Your task to perform on an android device: Search for "macbook pro 13 inch" on walmart, select the first entry, add it to the cart, then select checkout. Image 0: 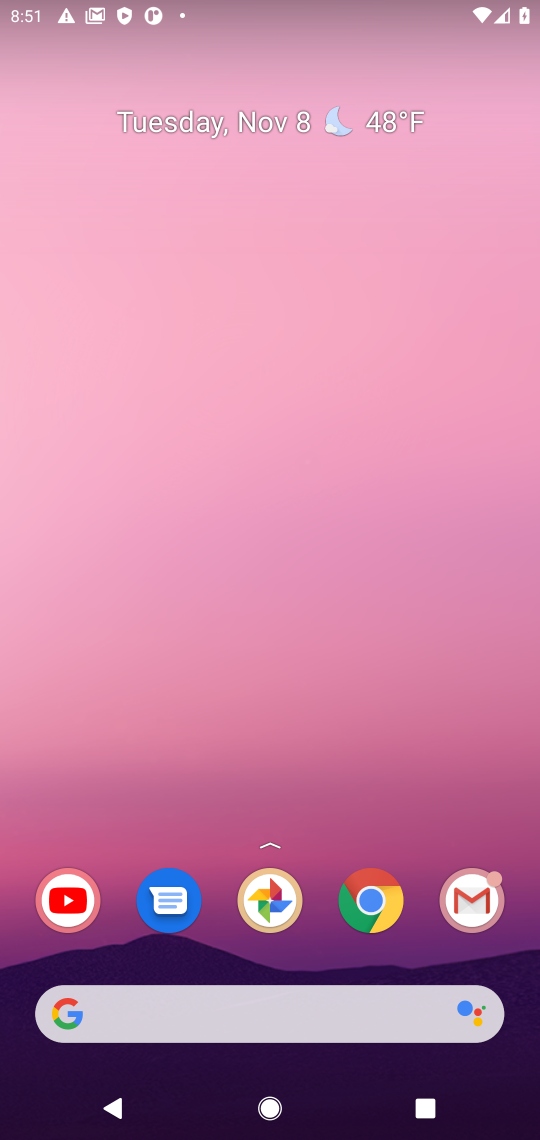
Step 0: click (362, 906)
Your task to perform on an android device: Search for "macbook pro 13 inch" on walmart, select the first entry, add it to the cart, then select checkout. Image 1: 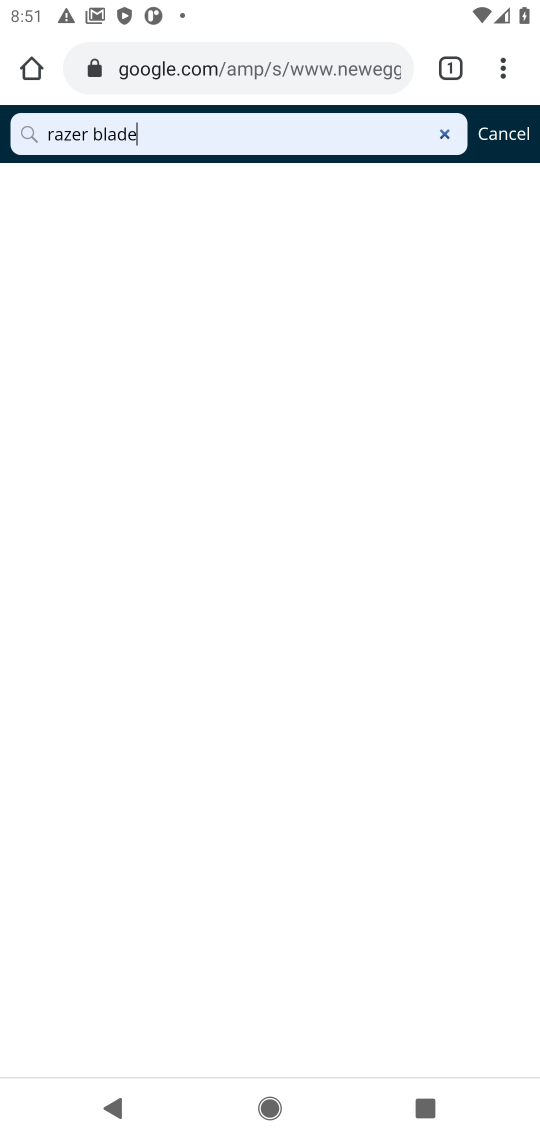
Step 1: click (177, 74)
Your task to perform on an android device: Search for "macbook pro 13 inch" on walmart, select the first entry, add it to the cart, then select checkout. Image 2: 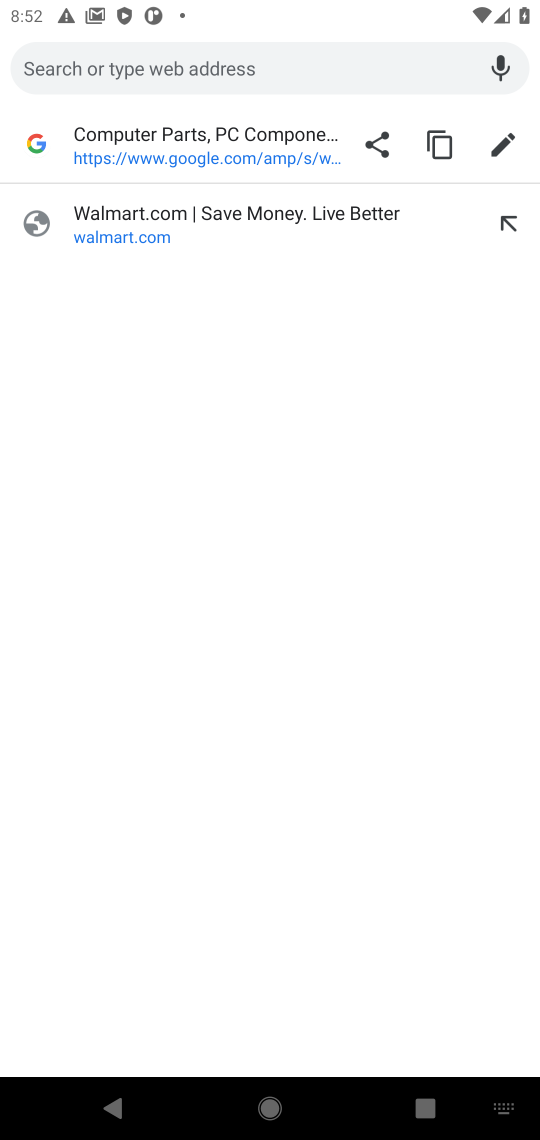
Step 2: type "walmart"
Your task to perform on an android device: Search for "macbook pro 13 inch" on walmart, select the first entry, add it to the cart, then select checkout. Image 3: 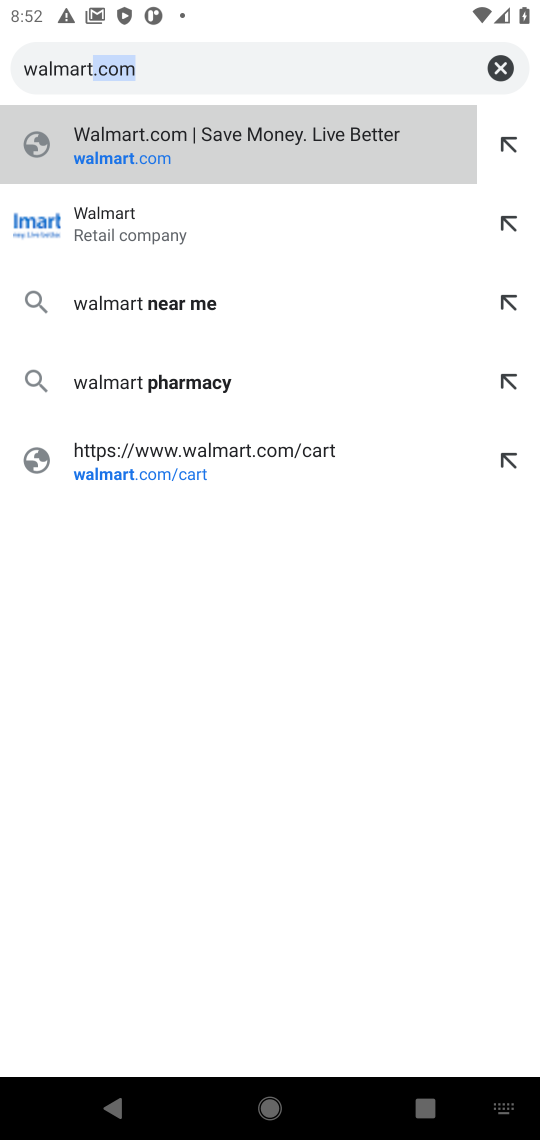
Step 3: type ""
Your task to perform on an android device: Search for "macbook pro 13 inch" on walmart, select the first entry, add it to the cart, then select checkout. Image 4: 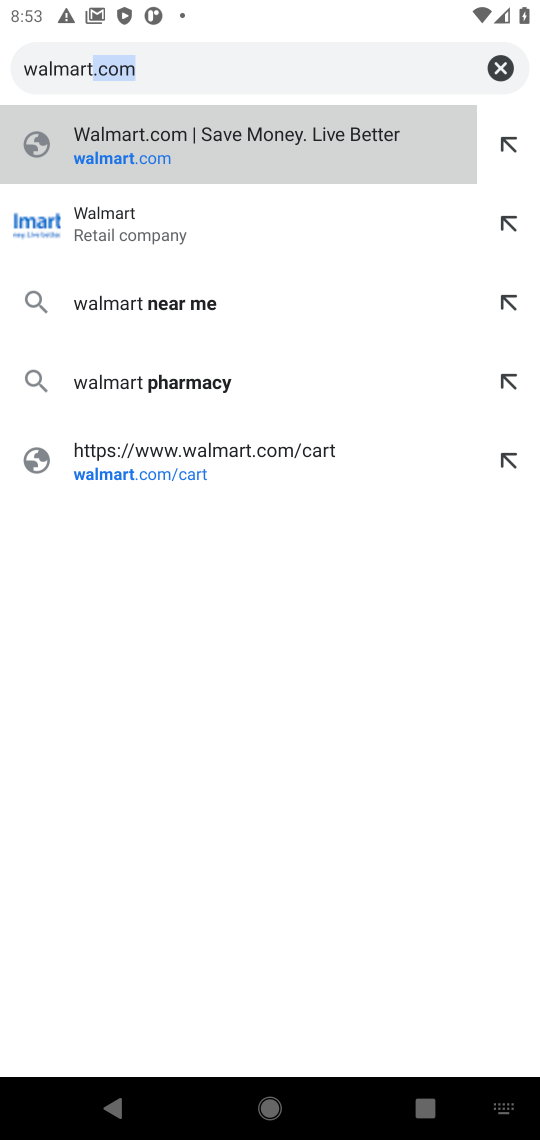
Step 4: click (151, 227)
Your task to perform on an android device: Search for "macbook pro 13 inch" on walmart, select the first entry, add it to the cart, then select checkout. Image 5: 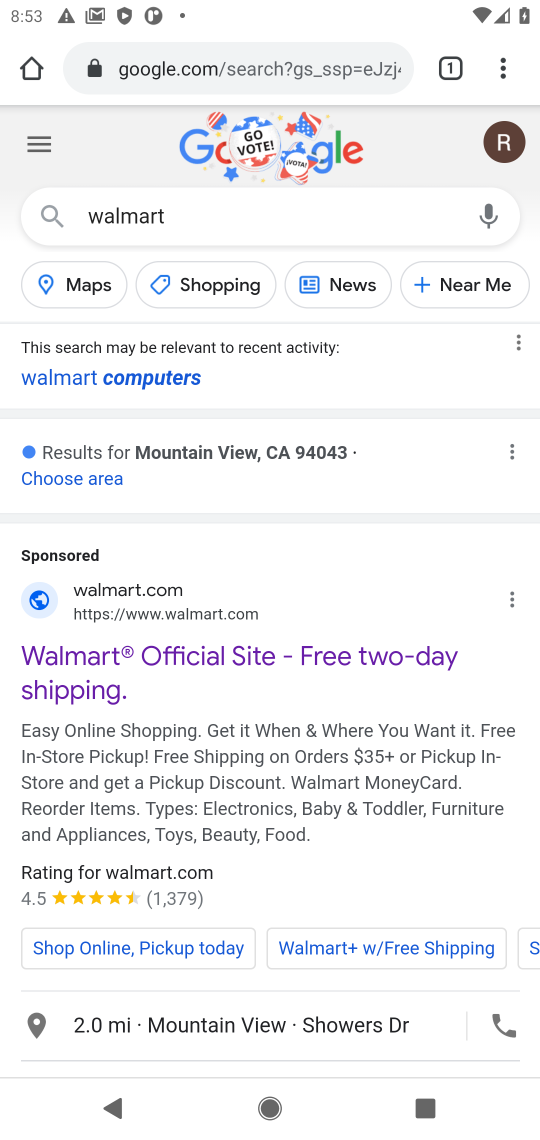
Step 5: drag from (165, 833) to (117, 415)
Your task to perform on an android device: Search for "macbook pro 13 inch" on walmart, select the first entry, add it to the cart, then select checkout. Image 6: 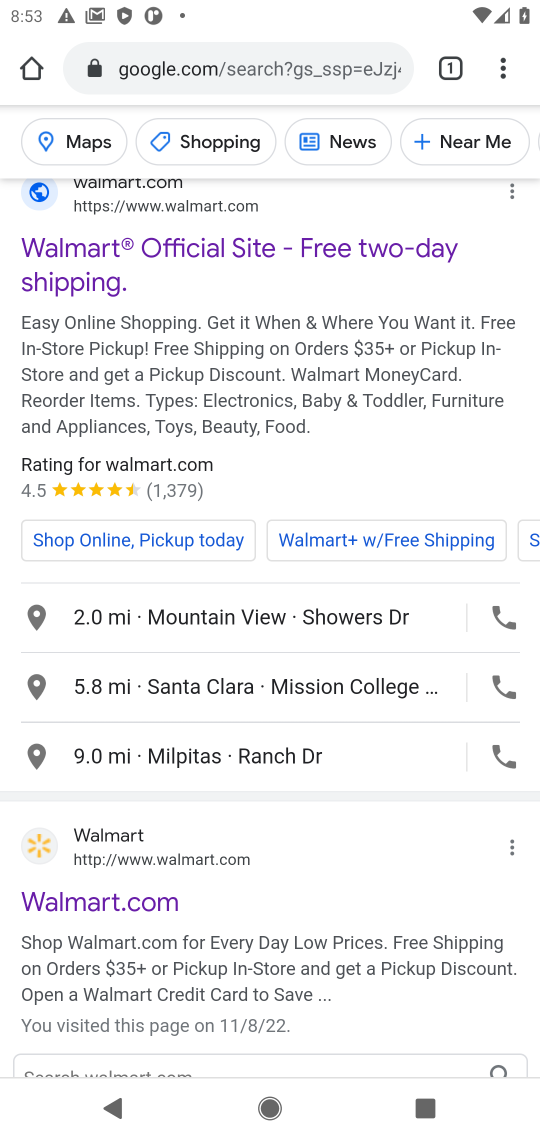
Step 6: click (82, 900)
Your task to perform on an android device: Search for "macbook pro 13 inch" on walmart, select the first entry, add it to the cart, then select checkout. Image 7: 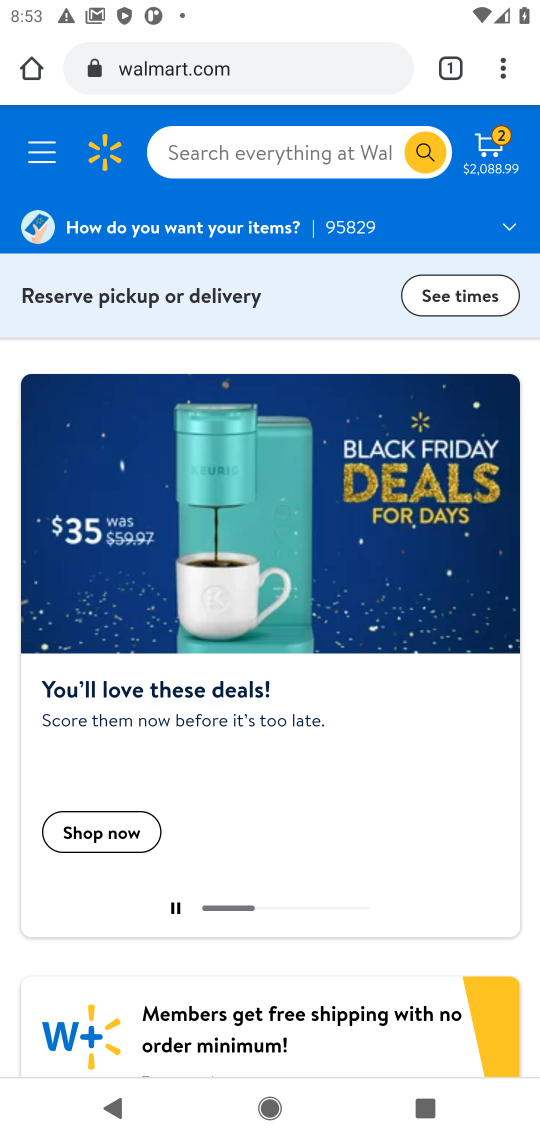
Step 7: click (205, 167)
Your task to perform on an android device: Search for "macbook pro 13 inch" on walmart, select the first entry, add it to the cart, then select checkout. Image 8: 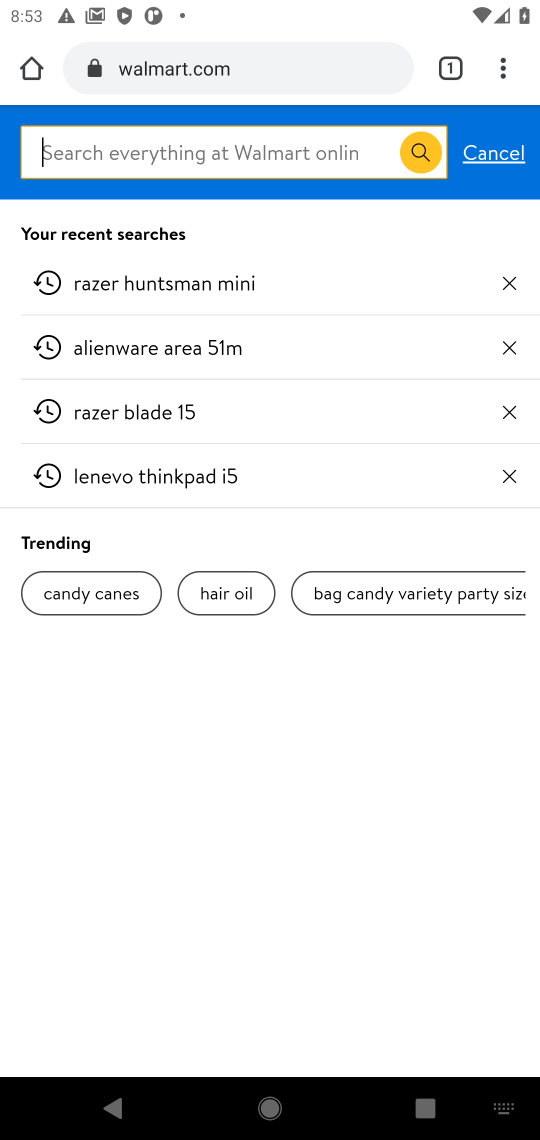
Step 8: type "macbook pro 13inch"
Your task to perform on an android device: Search for "macbook pro 13 inch" on walmart, select the first entry, add it to the cart, then select checkout. Image 9: 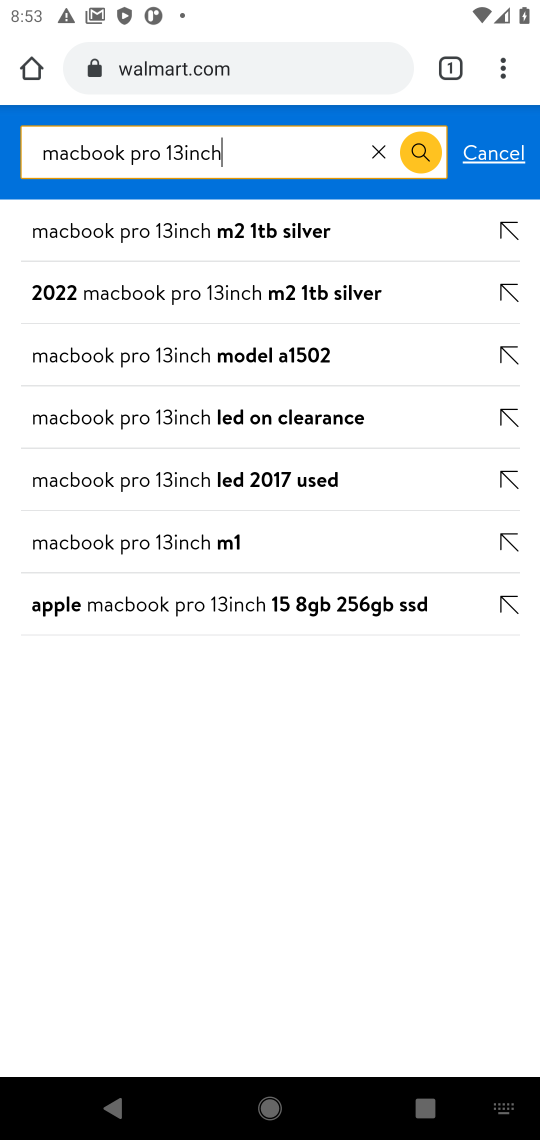
Step 9: click (197, 238)
Your task to perform on an android device: Search for "macbook pro 13 inch" on walmart, select the first entry, add it to the cart, then select checkout. Image 10: 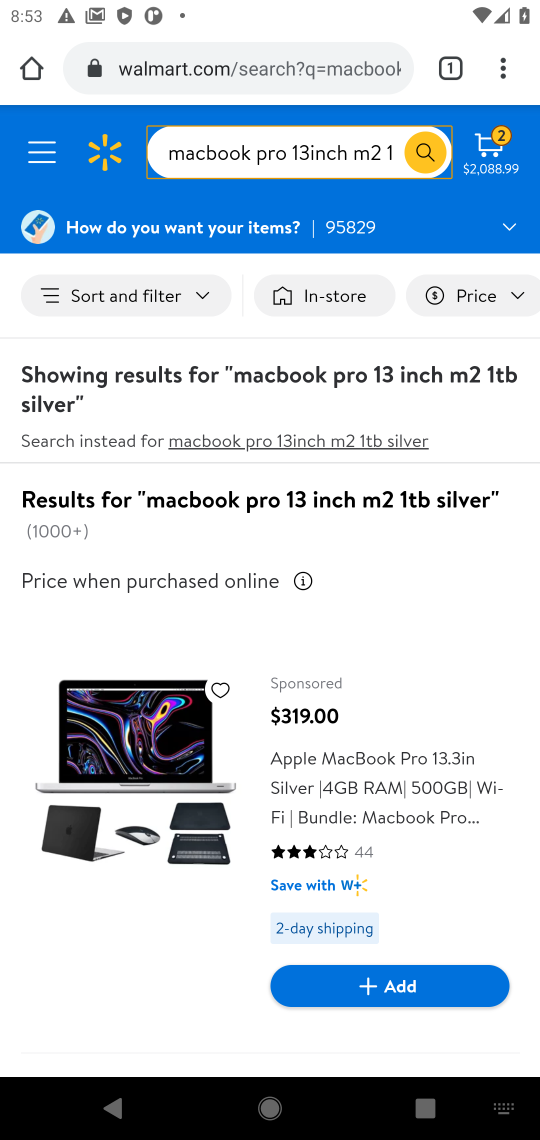
Step 10: click (131, 728)
Your task to perform on an android device: Search for "macbook pro 13 inch" on walmart, select the first entry, add it to the cart, then select checkout. Image 11: 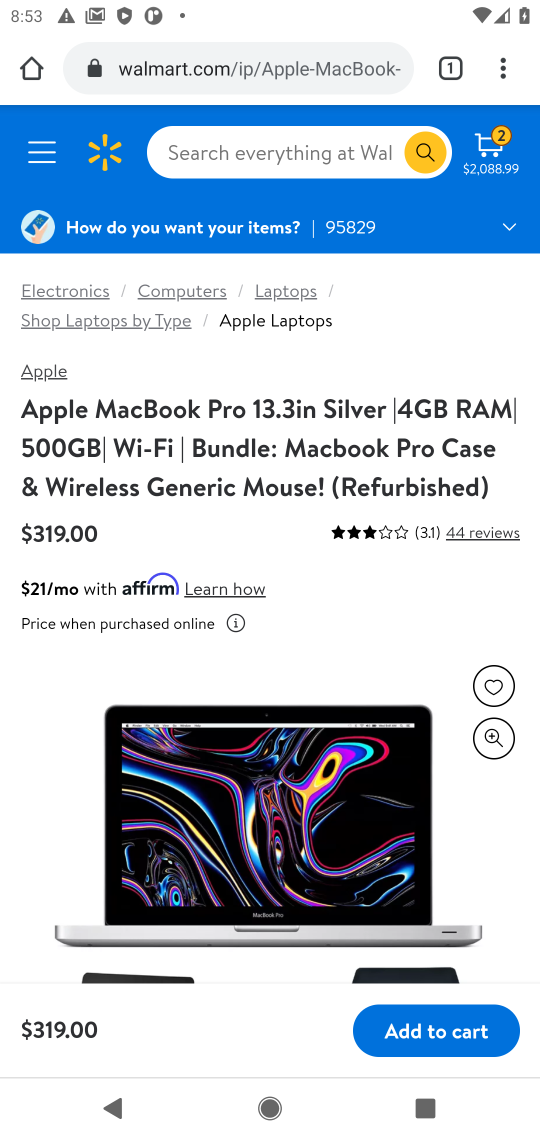
Step 11: drag from (193, 708) to (229, 118)
Your task to perform on an android device: Search for "macbook pro 13 inch" on walmart, select the first entry, add it to the cart, then select checkout. Image 12: 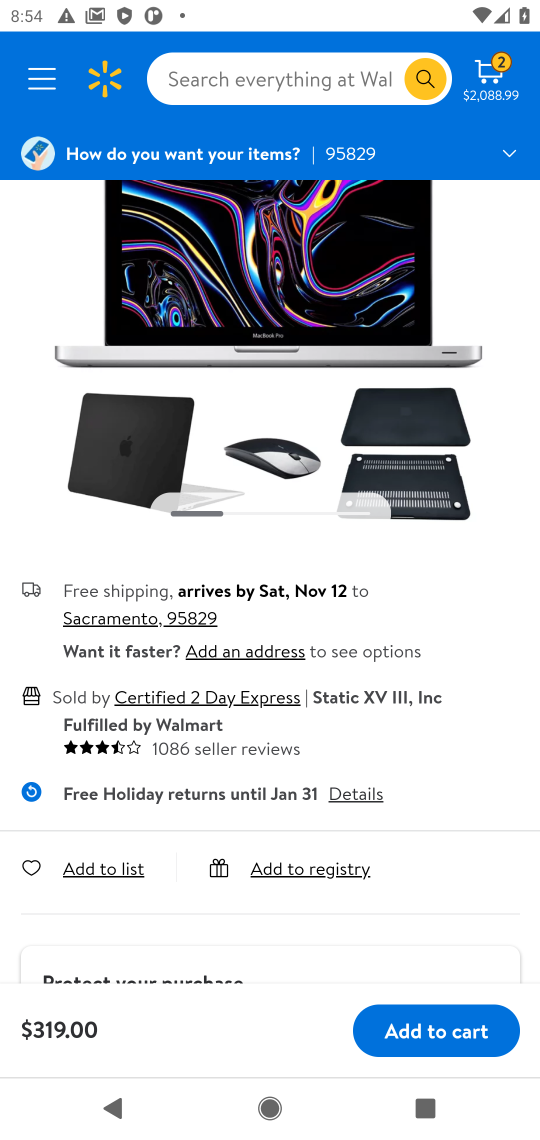
Step 12: click (460, 1039)
Your task to perform on an android device: Search for "macbook pro 13 inch" on walmart, select the first entry, add it to the cart, then select checkout. Image 13: 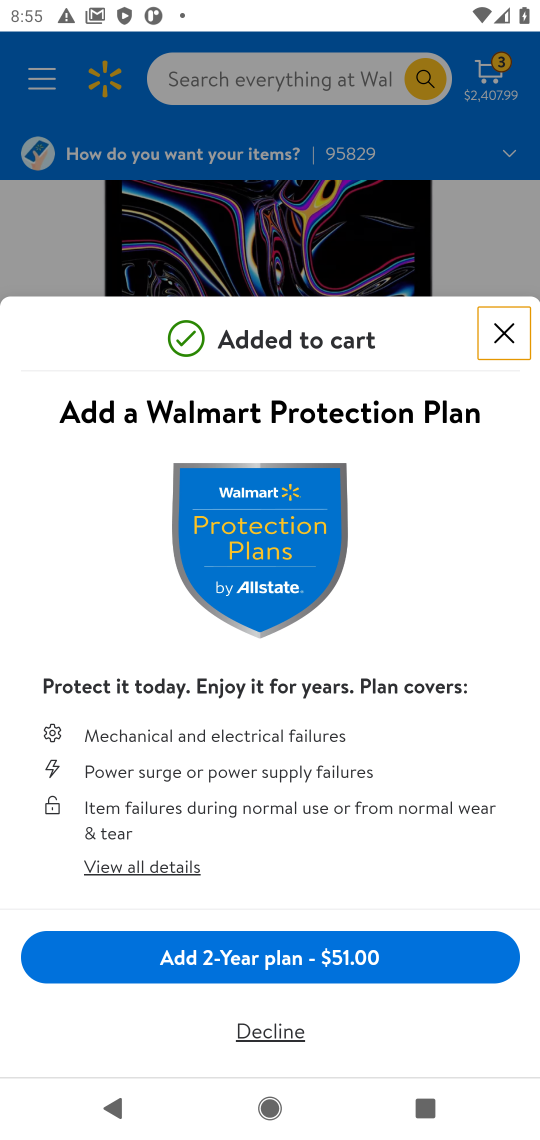
Step 13: click (508, 336)
Your task to perform on an android device: Search for "macbook pro 13 inch" on walmart, select the first entry, add it to the cart, then select checkout. Image 14: 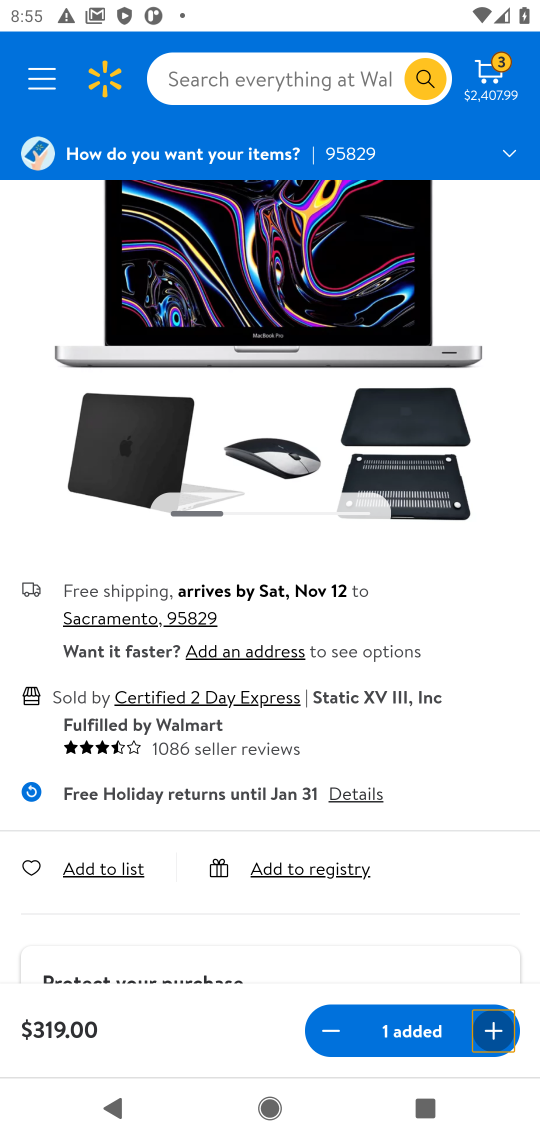
Step 14: click (486, 86)
Your task to perform on an android device: Search for "macbook pro 13 inch" on walmart, select the first entry, add it to the cart, then select checkout. Image 15: 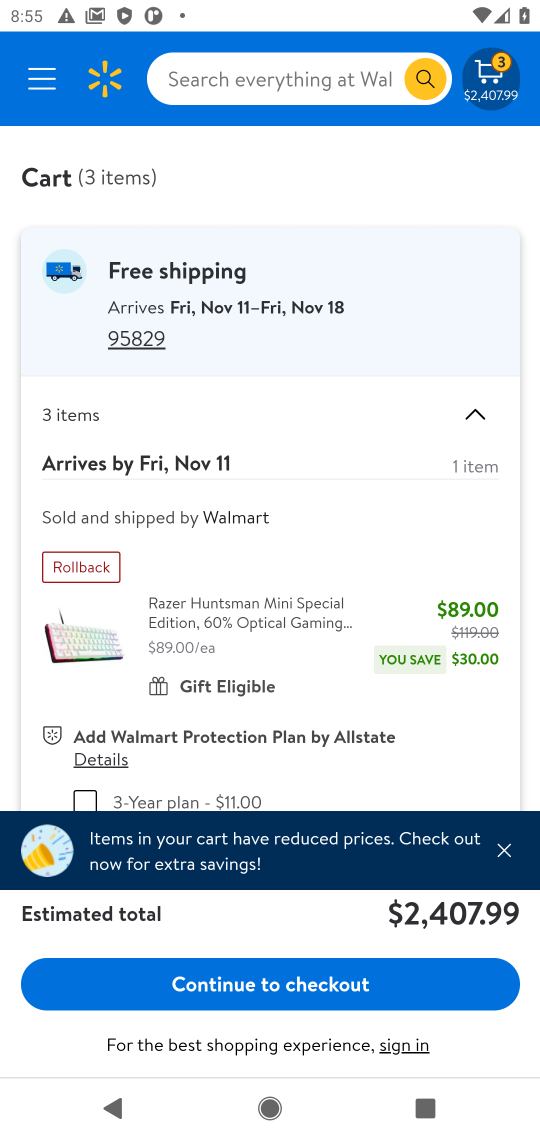
Step 15: click (508, 850)
Your task to perform on an android device: Search for "macbook pro 13 inch" on walmart, select the first entry, add it to the cart, then select checkout. Image 16: 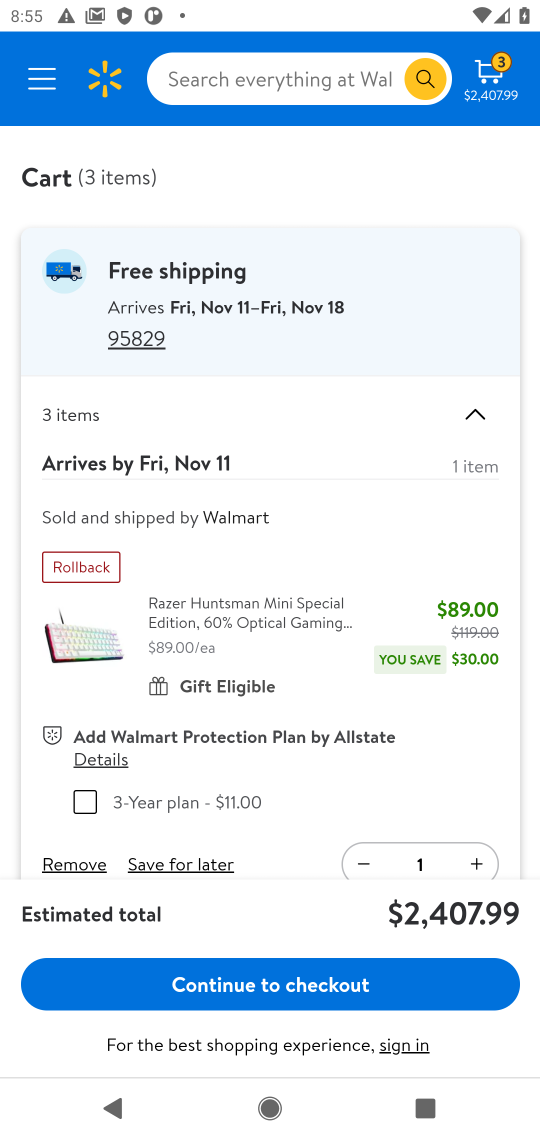
Step 16: click (329, 992)
Your task to perform on an android device: Search for "macbook pro 13 inch" on walmart, select the first entry, add it to the cart, then select checkout. Image 17: 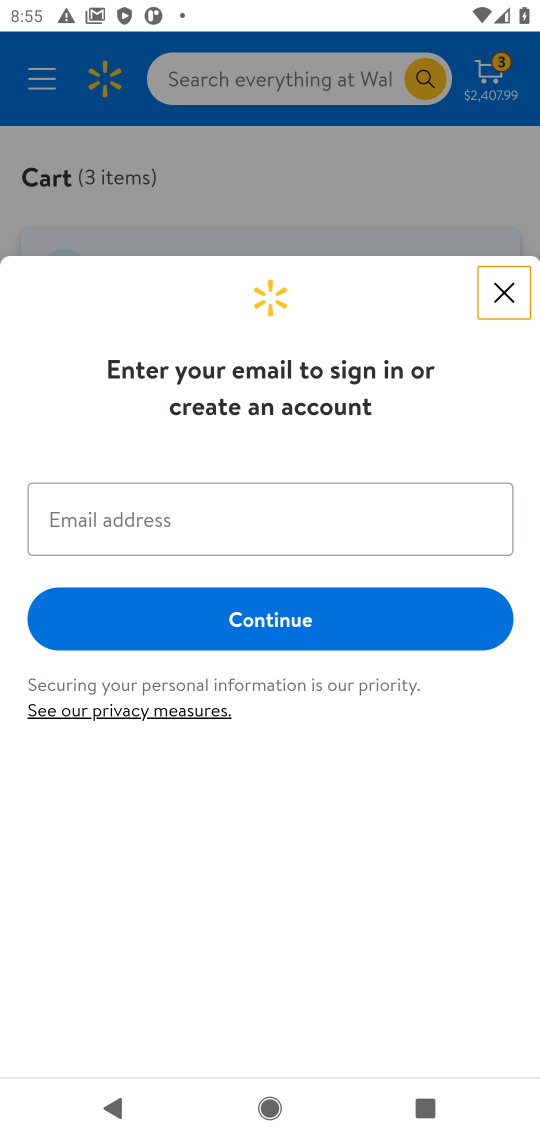
Step 17: click (503, 288)
Your task to perform on an android device: Search for "macbook pro 13 inch" on walmart, select the first entry, add it to the cart, then select checkout. Image 18: 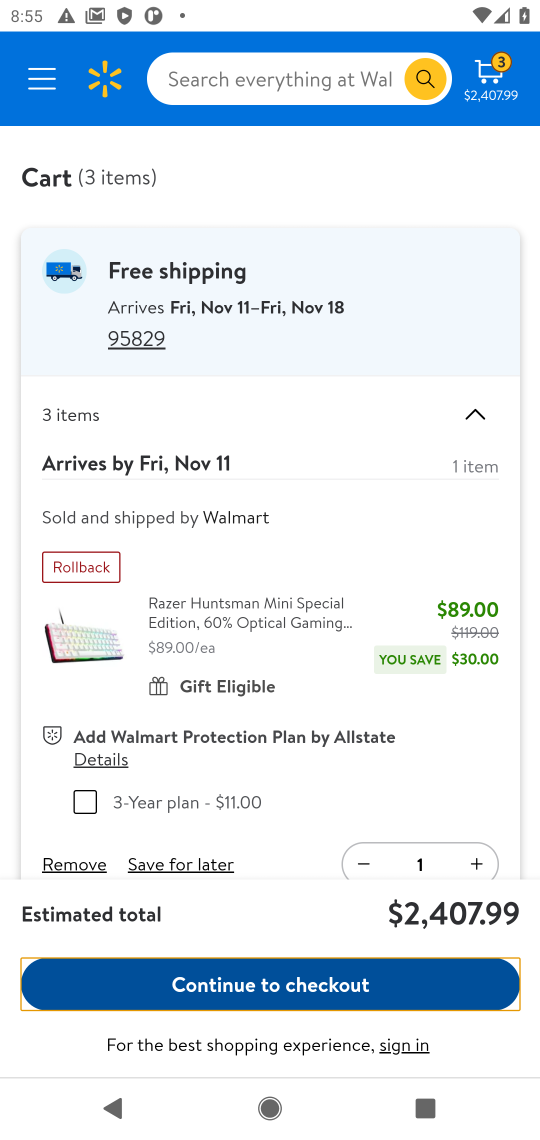
Step 18: drag from (312, 680) to (278, 273)
Your task to perform on an android device: Search for "macbook pro 13 inch" on walmart, select the first entry, add it to the cart, then select checkout. Image 19: 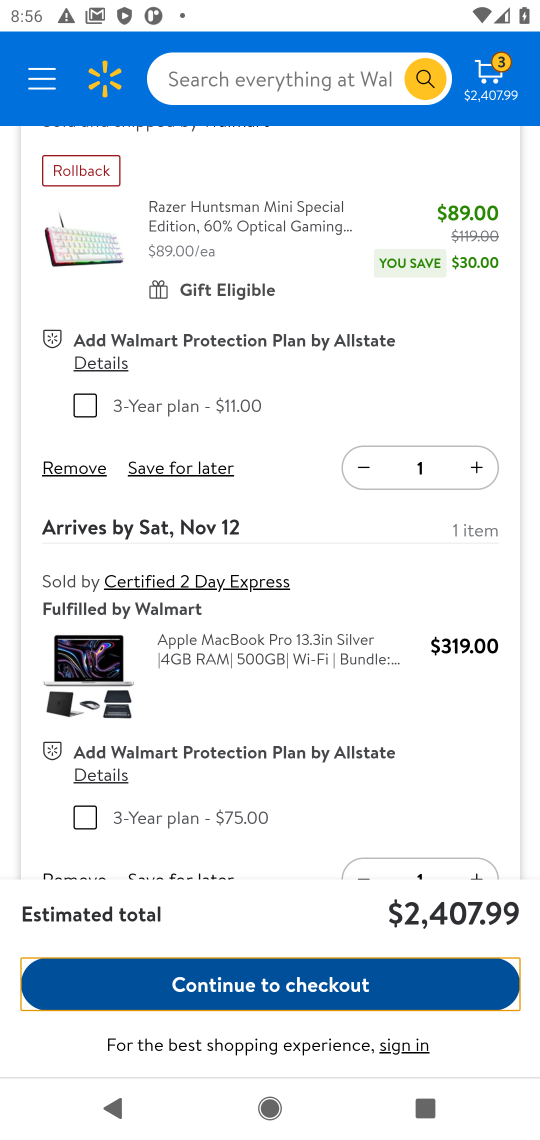
Step 19: click (263, 993)
Your task to perform on an android device: Search for "macbook pro 13 inch" on walmart, select the first entry, add it to the cart, then select checkout. Image 20: 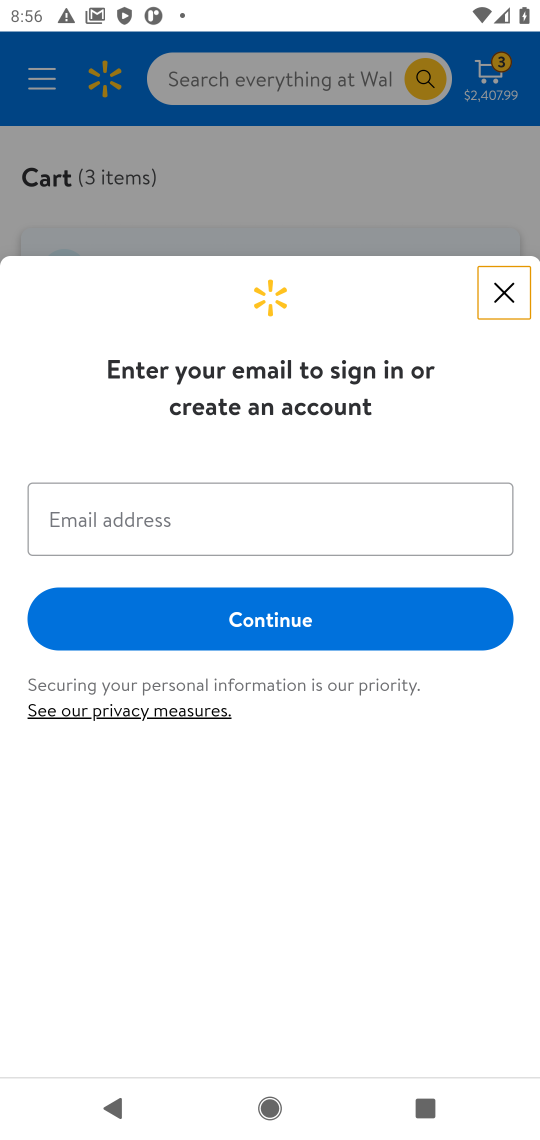
Step 20: task complete